Your task to perform on an android device: turn off translation in the chrome app Image 0: 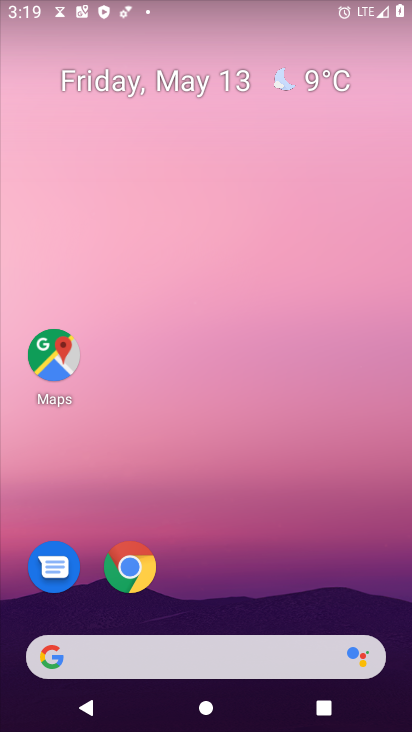
Step 0: click (141, 576)
Your task to perform on an android device: turn off translation in the chrome app Image 1: 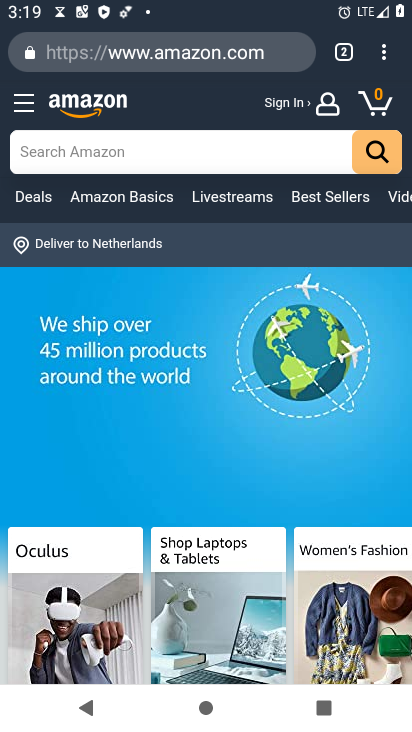
Step 1: click (388, 59)
Your task to perform on an android device: turn off translation in the chrome app Image 2: 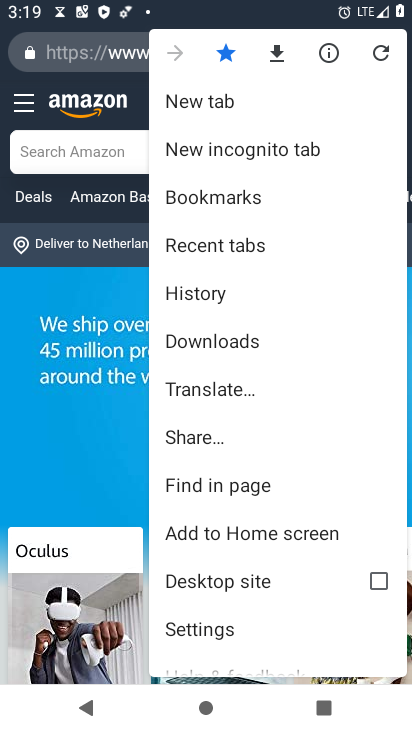
Step 2: click (230, 636)
Your task to perform on an android device: turn off translation in the chrome app Image 3: 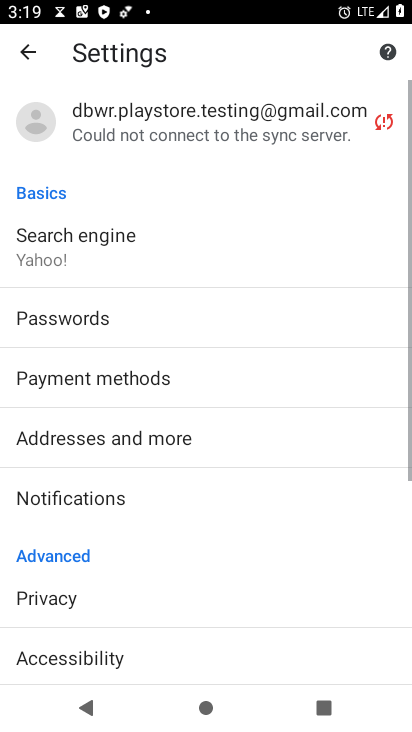
Step 3: drag from (230, 636) to (237, 210)
Your task to perform on an android device: turn off translation in the chrome app Image 4: 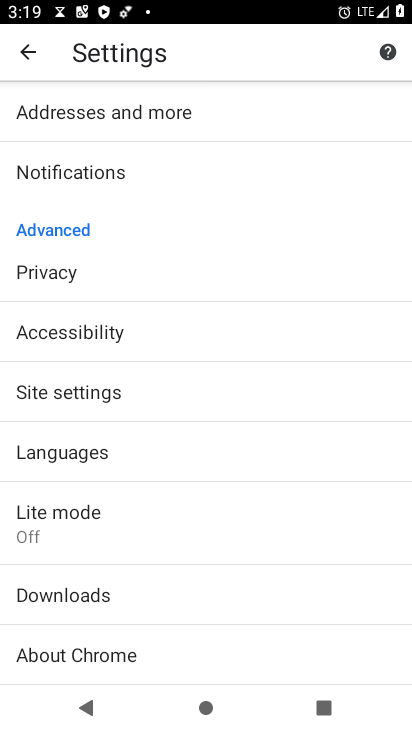
Step 4: click (63, 462)
Your task to perform on an android device: turn off translation in the chrome app Image 5: 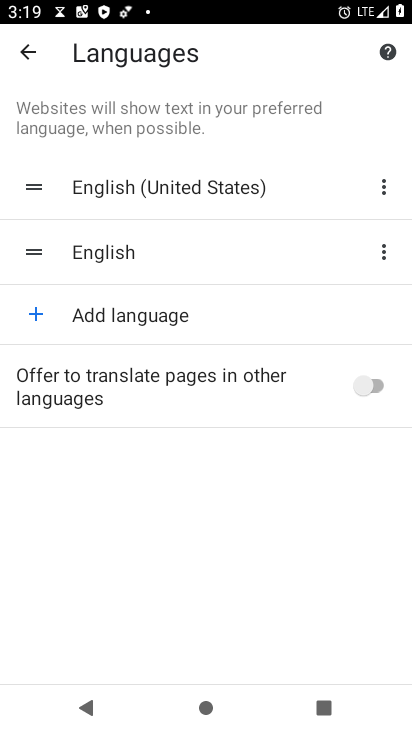
Step 5: task complete